Your task to perform on an android device: make emails show in primary in the gmail app Image 0: 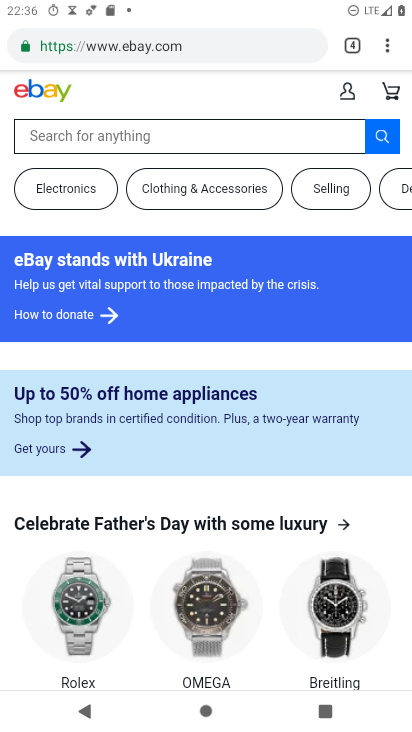
Step 0: press back button
Your task to perform on an android device: make emails show in primary in the gmail app Image 1: 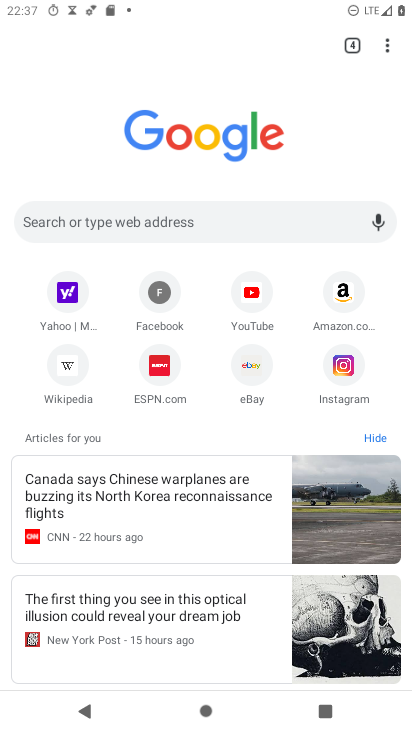
Step 1: press back button
Your task to perform on an android device: make emails show in primary in the gmail app Image 2: 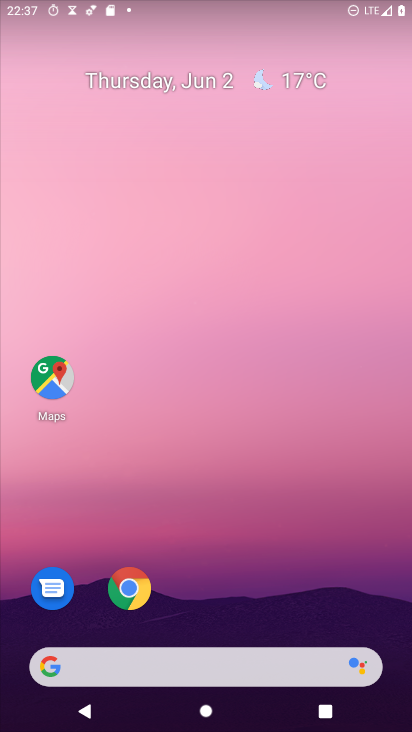
Step 2: drag from (215, 578) to (247, 77)
Your task to perform on an android device: make emails show in primary in the gmail app Image 3: 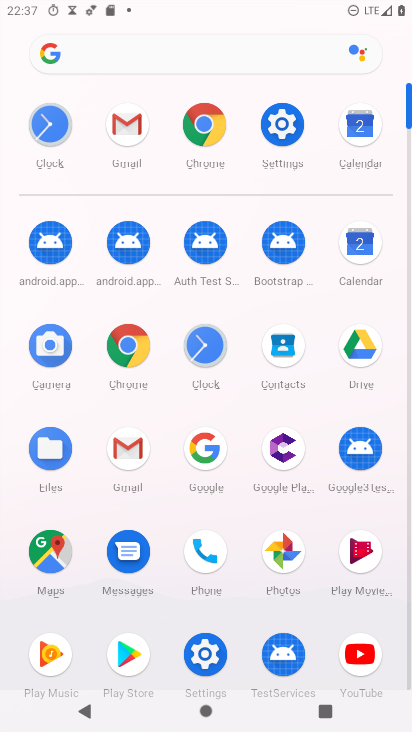
Step 3: click (121, 123)
Your task to perform on an android device: make emails show in primary in the gmail app Image 4: 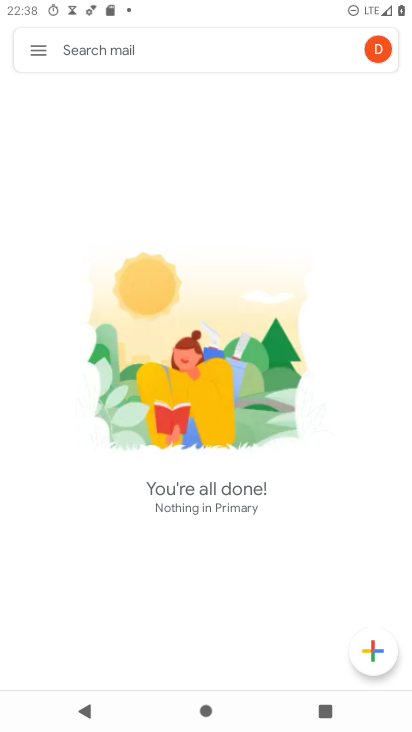
Step 4: click (30, 40)
Your task to perform on an android device: make emails show in primary in the gmail app Image 5: 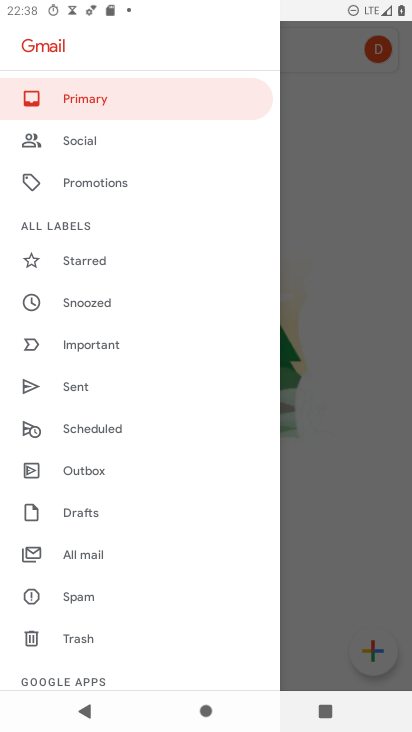
Step 5: drag from (96, 662) to (169, 85)
Your task to perform on an android device: make emails show in primary in the gmail app Image 6: 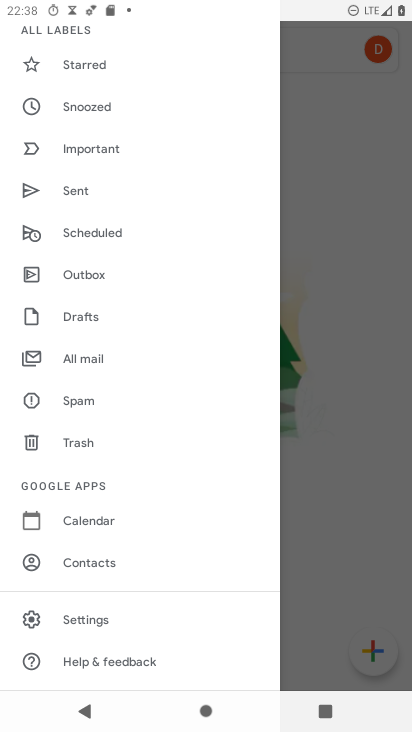
Step 6: click (114, 614)
Your task to perform on an android device: make emails show in primary in the gmail app Image 7: 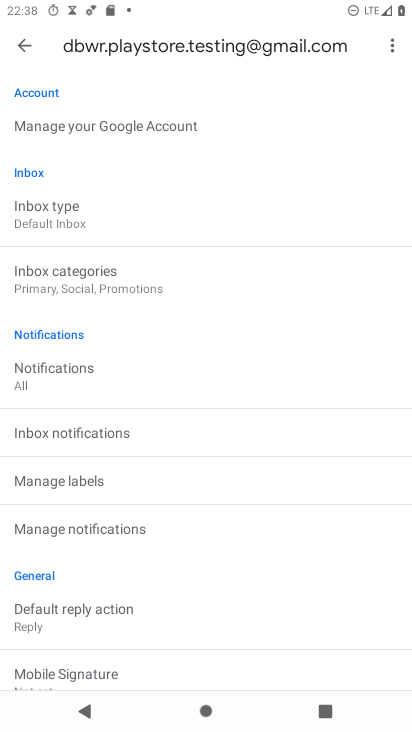
Step 7: click (119, 273)
Your task to perform on an android device: make emails show in primary in the gmail app Image 8: 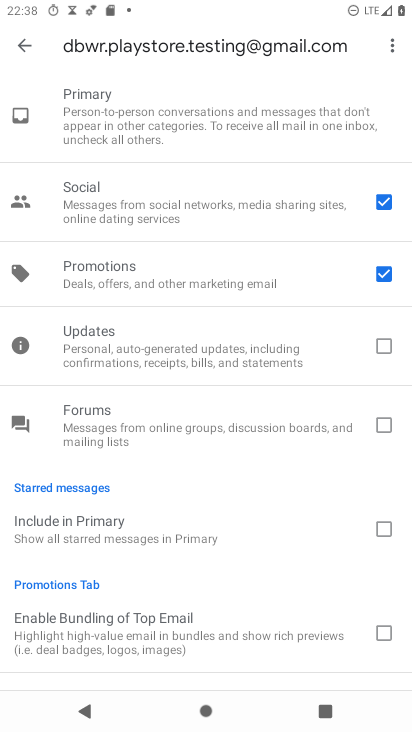
Step 8: click (361, 517)
Your task to perform on an android device: make emails show in primary in the gmail app Image 9: 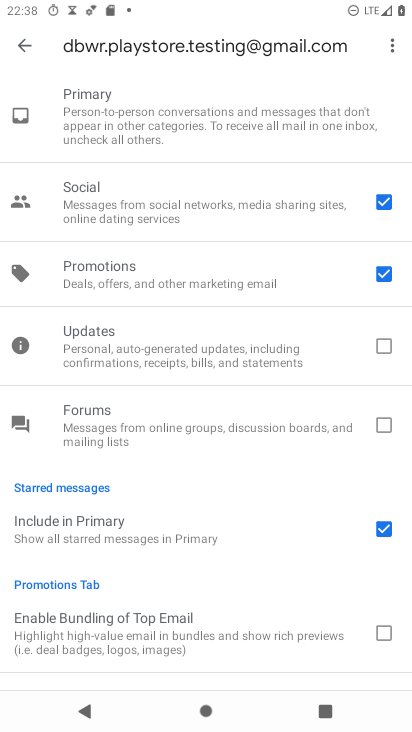
Step 9: task complete